Your task to perform on an android device: all mails in gmail Image 0: 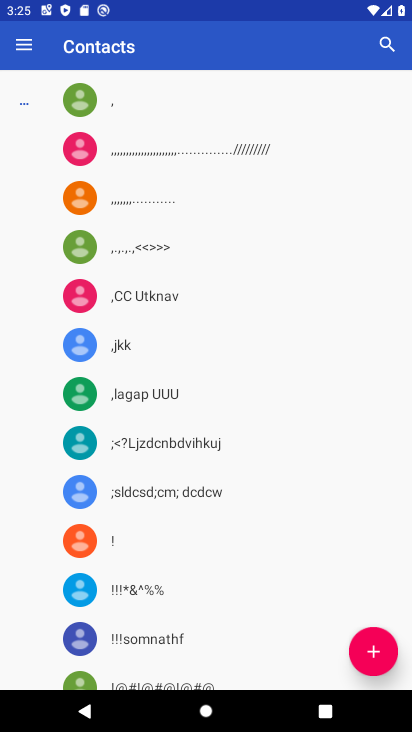
Step 0: press home button
Your task to perform on an android device: all mails in gmail Image 1: 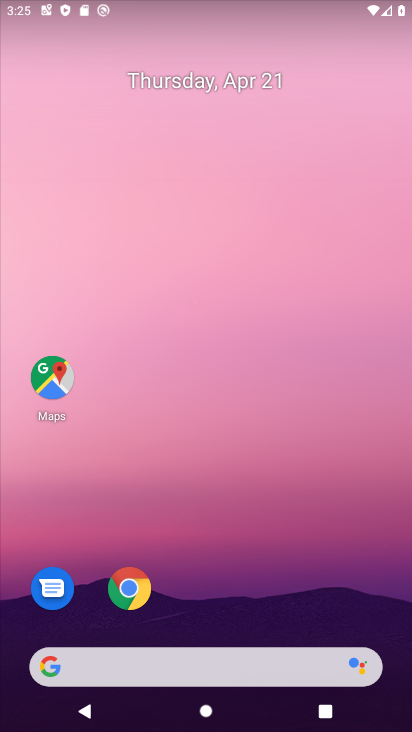
Step 1: drag from (179, 658) to (145, 170)
Your task to perform on an android device: all mails in gmail Image 2: 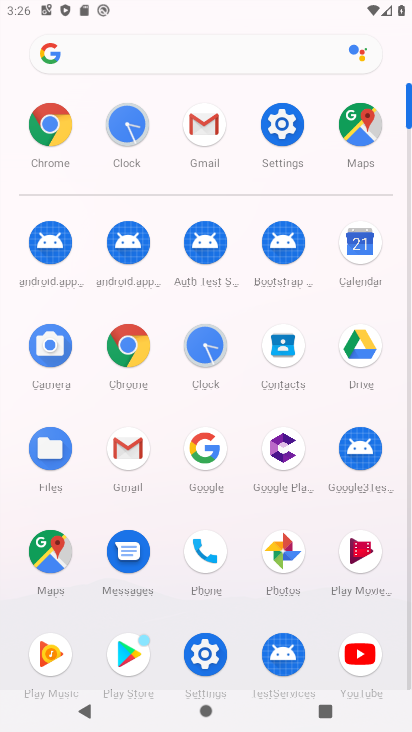
Step 2: click (209, 131)
Your task to perform on an android device: all mails in gmail Image 3: 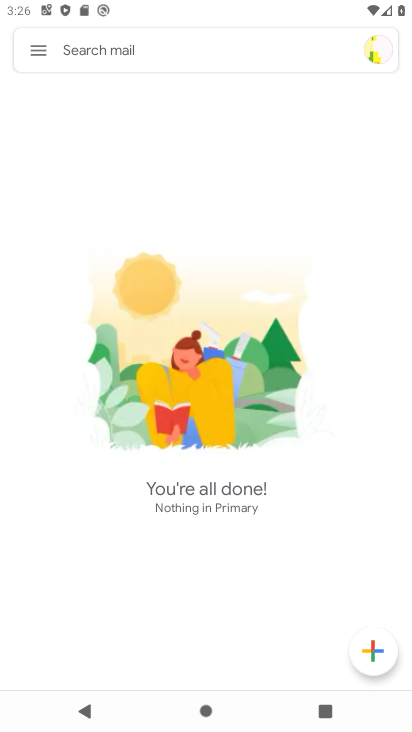
Step 3: click (46, 51)
Your task to perform on an android device: all mails in gmail Image 4: 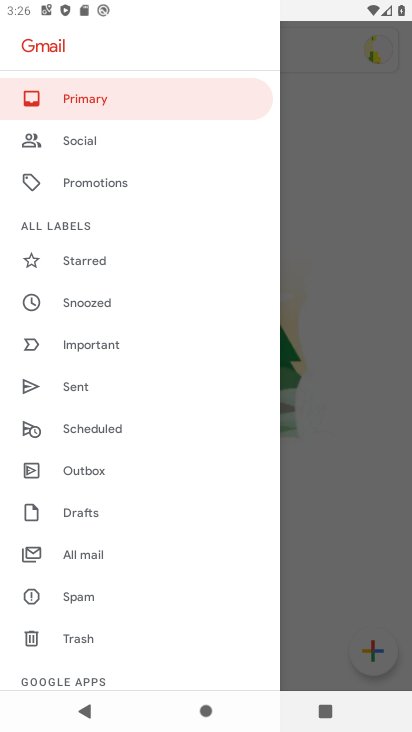
Step 4: click (101, 549)
Your task to perform on an android device: all mails in gmail Image 5: 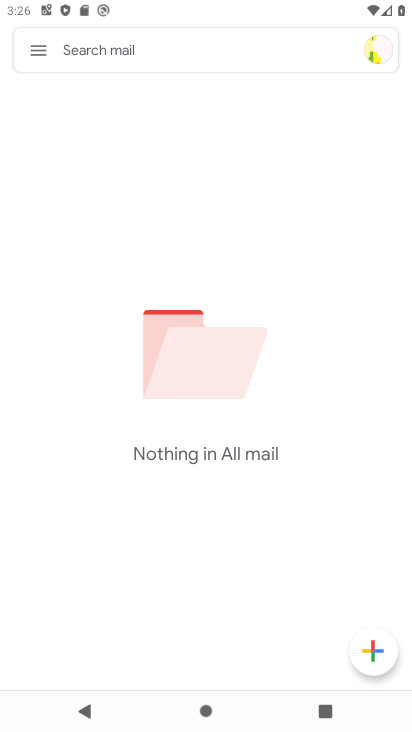
Step 5: task complete